Your task to perform on an android device: star an email in the gmail app Image 0: 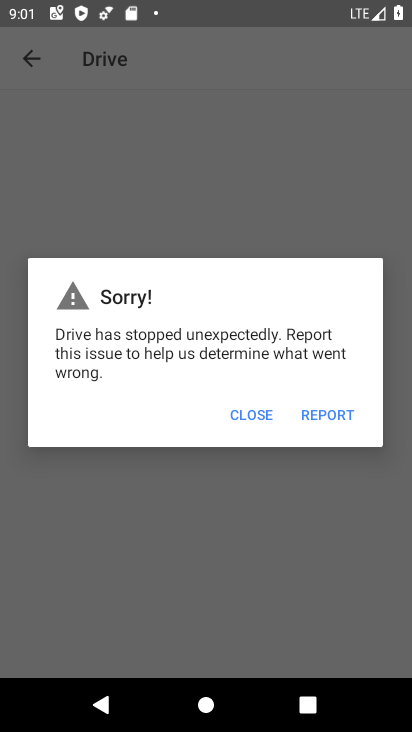
Step 0: press home button
Your task to perform on an android device: star an email in the gmail app Image 1: 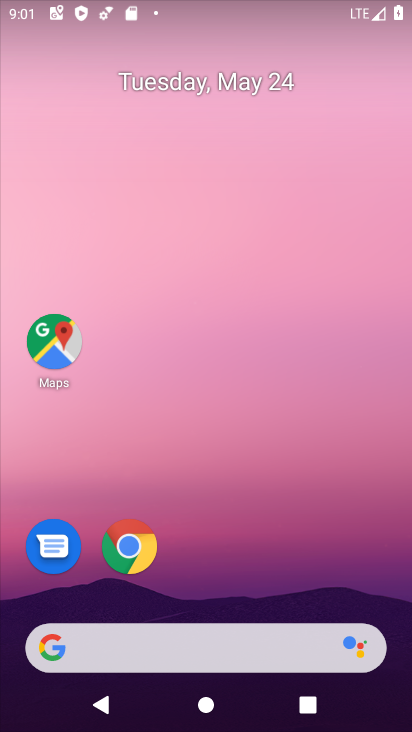
Step 1: drag from (221, 503) to (248, 21)
Your task to perform on an android device: star an email in the gmail app Image 2: 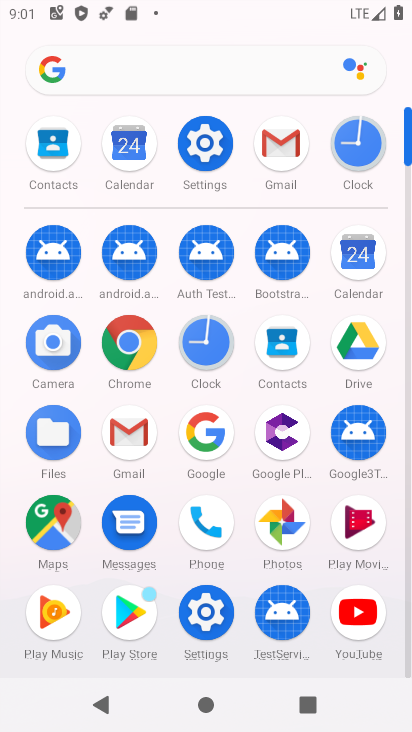
Step 2: click (264, 138)
Your task to perform on an android device: star an email in the gmail app Image 3: 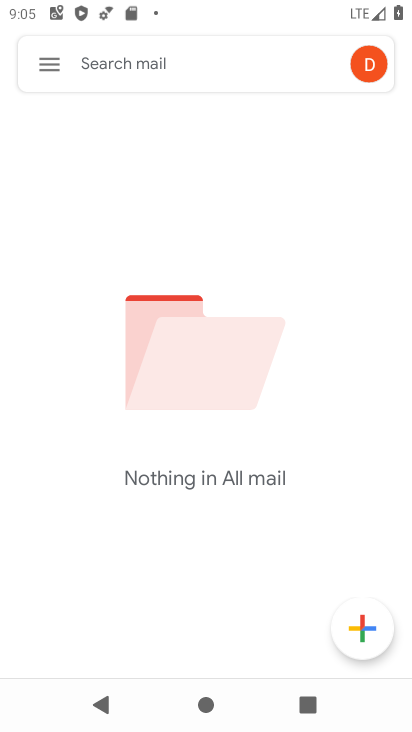
Step 3: task complete